Your task to perform on an android device: Open calendar and show me the first week of next month Image 0: 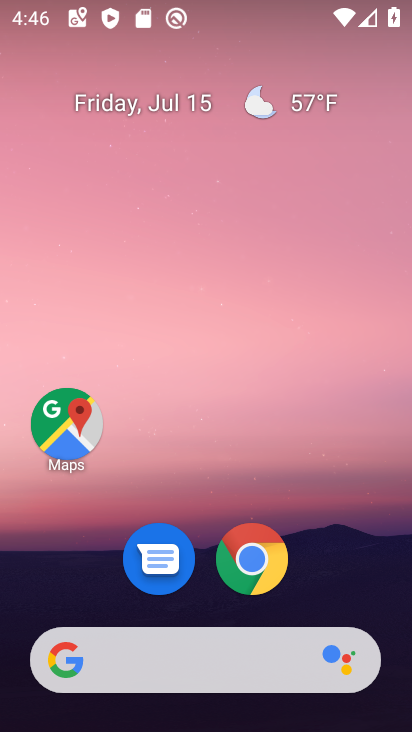
Step 0: drag from (107, 596) to (188, 14)
Your task to perform on an android device: Open calendar and show me the first week of next month Image 1: 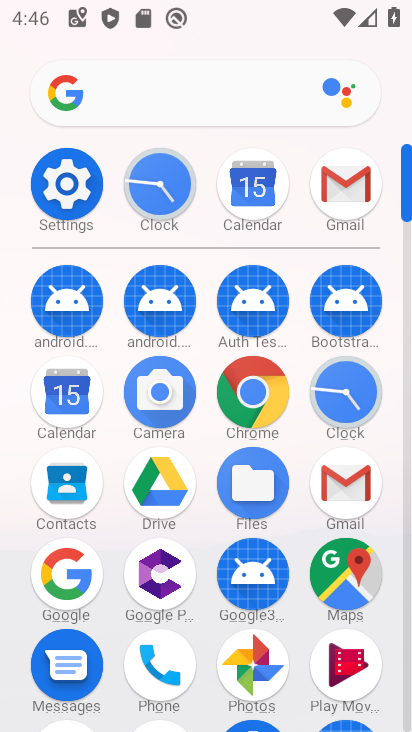
Step 1: click (70, 401)
Your task to perform on an android device: Open calendar and show me the first week of next month Image 2: 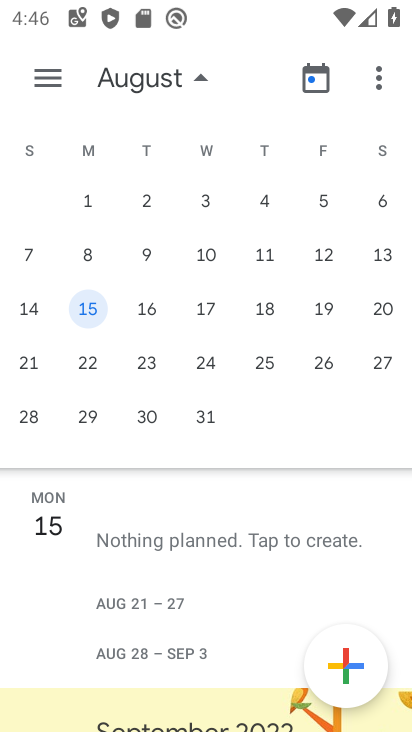
Step 2: click (86, 197)
Your task to perform on an android device: Open calendar and show me the first week of next month Image 3: 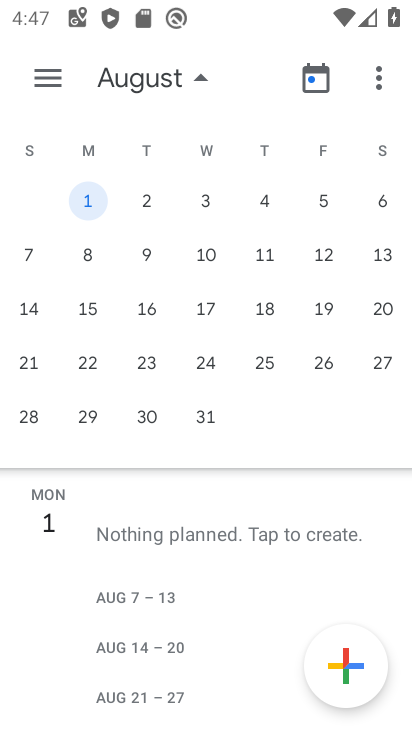
Step 3: task complete